Your task to perform on an android device: Open Google Chrome Image 0: 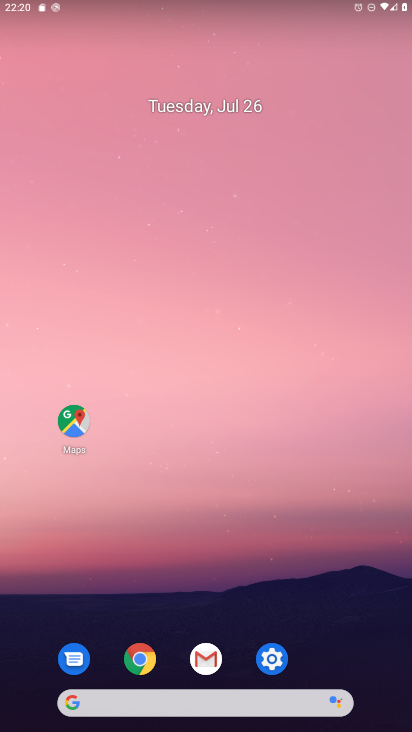
Step 0: click (139, 653)
Your task to perform on an android device: Open Google Chrome Image 1: 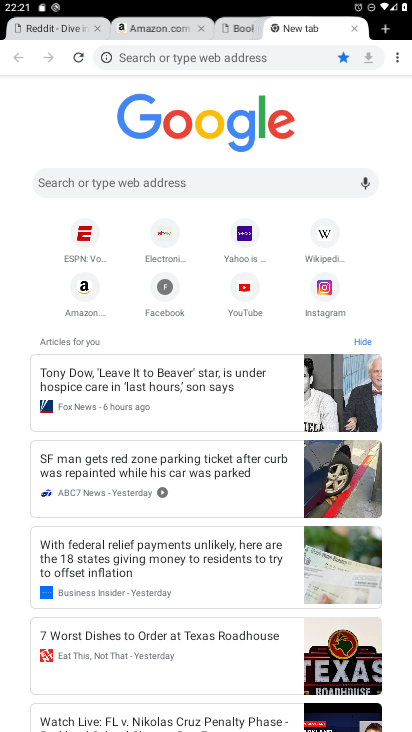
Step 1: task complete